Your task to perform on an android device: Open display settings Image 0: 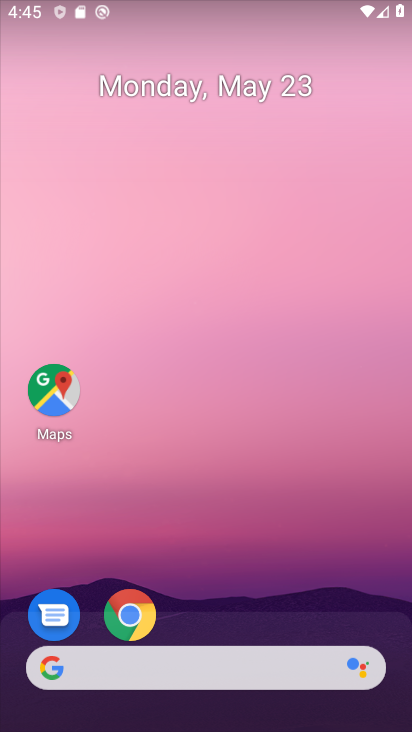
Step 0: drag from (253, 619) to (235, 104)
Your task to perform on an android device: Open display settings Image 1: 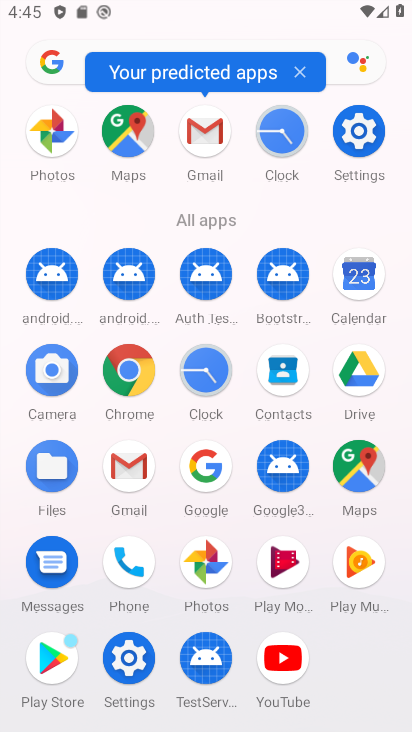
Step 1: click (358, 139)
Your task to perform on an android device: Open display settings Image 2: 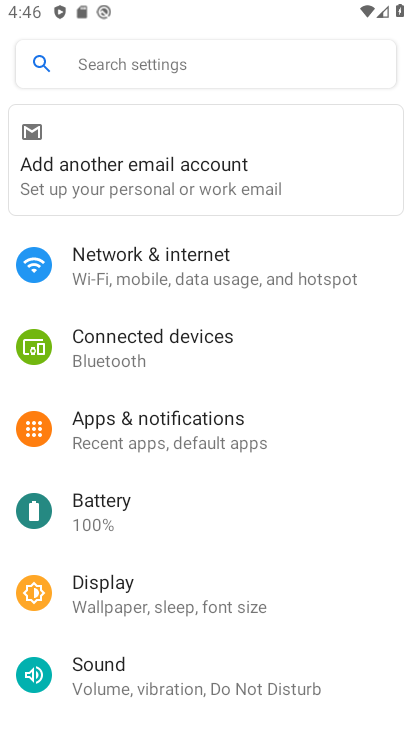
Step 2: click (214, 588)
Your task to perform on an android device: Open display settings Image 3: 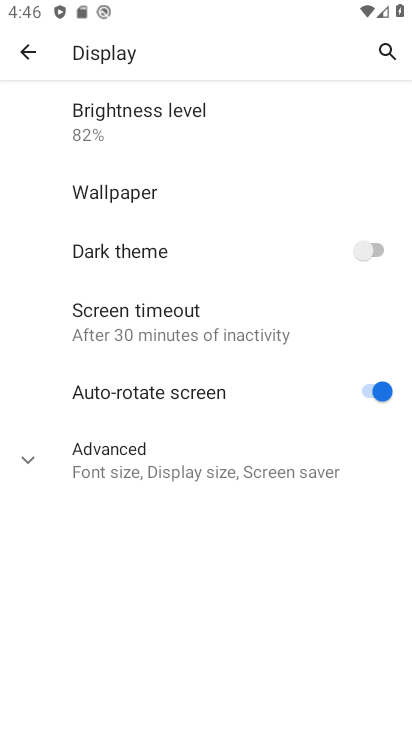
Step 3: task complete